Your task to perform on an android device: check data usage Image 0: 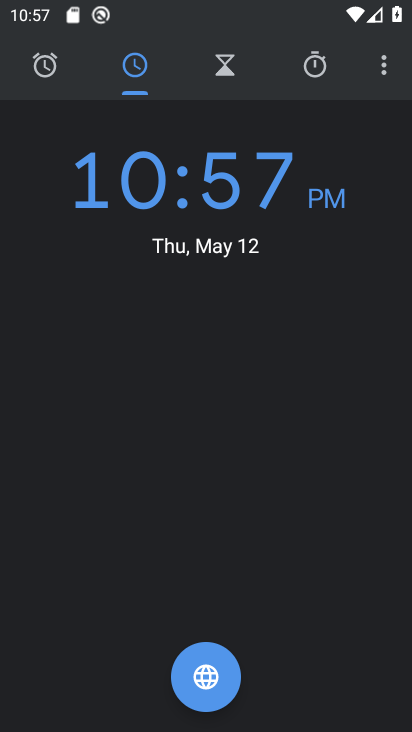
Step 0: press home button
Your task to perform on an android device: check data usage Image 1: 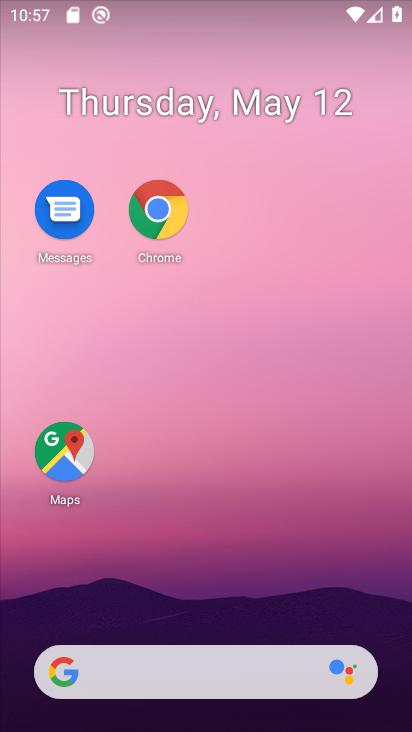
Step 1: drag from (195, 384) to (203, 78)
Your task to perform on an android device: check data usage Image 2: 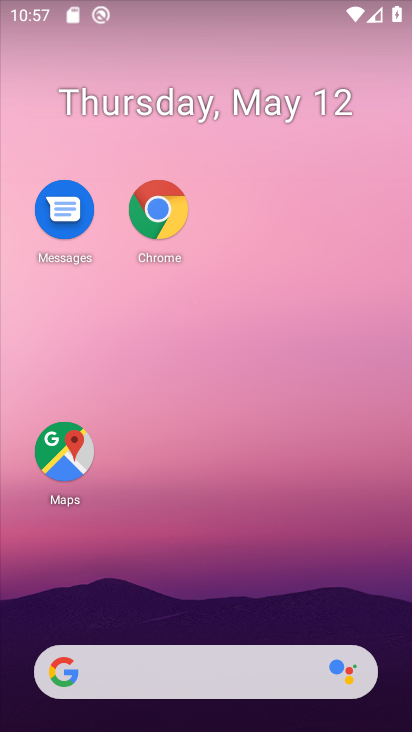
Step 2: drag from (198, 603) to (227, 11)
Your task to perform on an android device: check data usage Image 3: 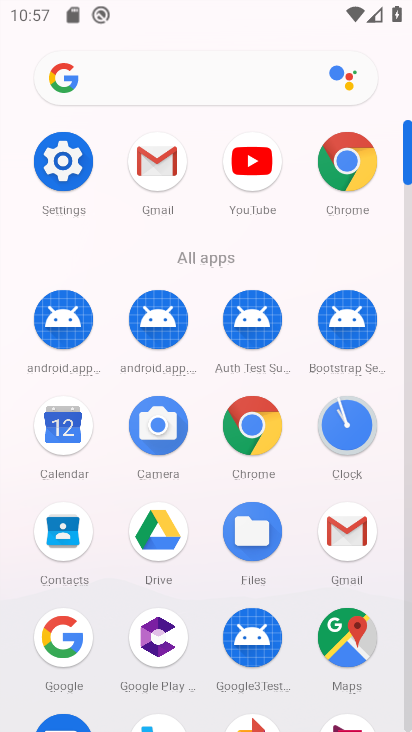
Step 3: click (66, 160)
Your task to perform on an android device: check data usage Image 4: 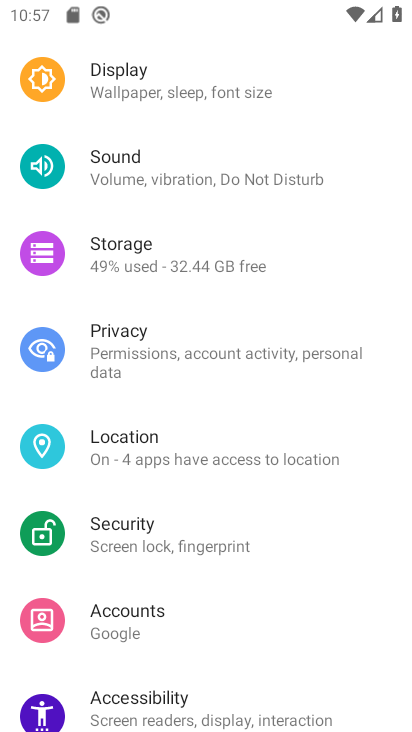
Step 4: drag from (147, 110) to (211, 593)
Your task to perform on an android device: check data usage Image 5: 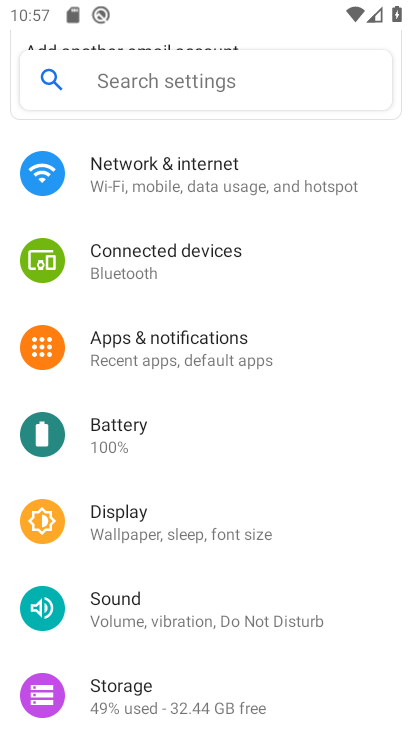
Step 5: click (179, 189)
Your task to perform on an android device: check data usage Image 6: 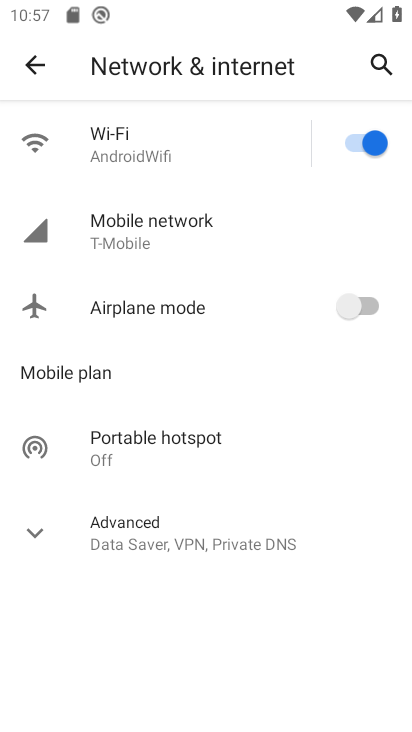
Step 6: click (163, 238)
Your task to perform on an android device: check data usage Image 7: 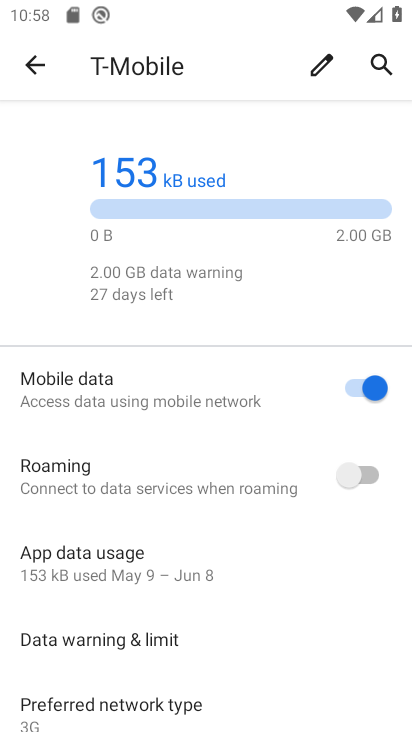
Step 7: task complete